Your task to perform on an android device: What is the news today? Image 0: 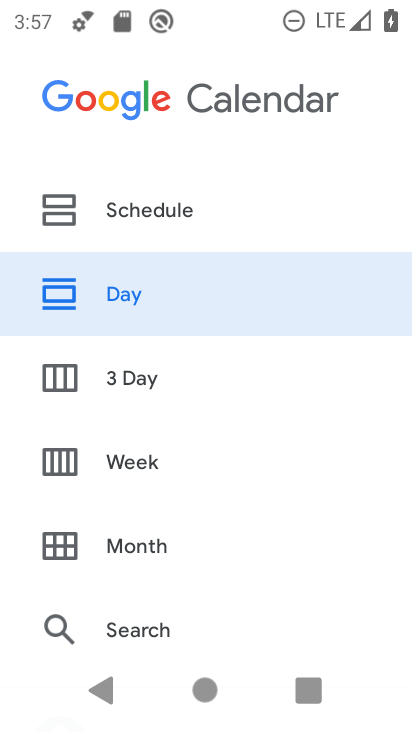
Step 0: press home button
Your task to perform on an android device: What is the news today? Image 1: 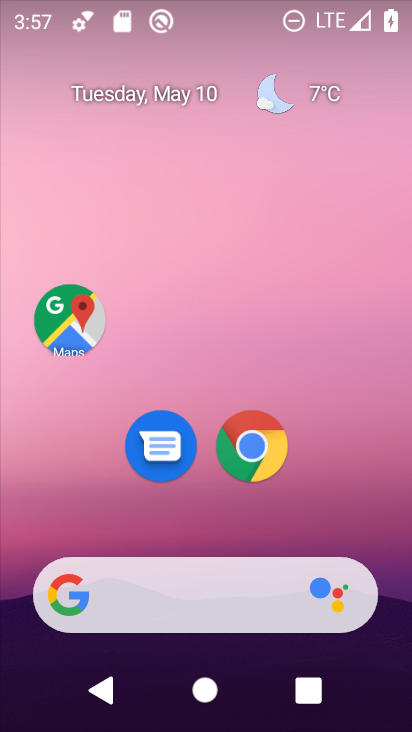
Step 1: drag from (347, 536) to (285, 56)
Your task to perform on an android device: What is the news today? Image 2: 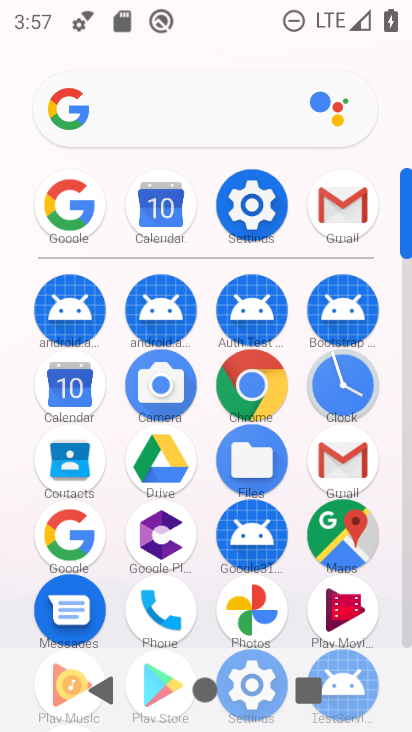
Step 2: click (69, 543)
Your task to perform on an android device: What is the news today? Image 3: 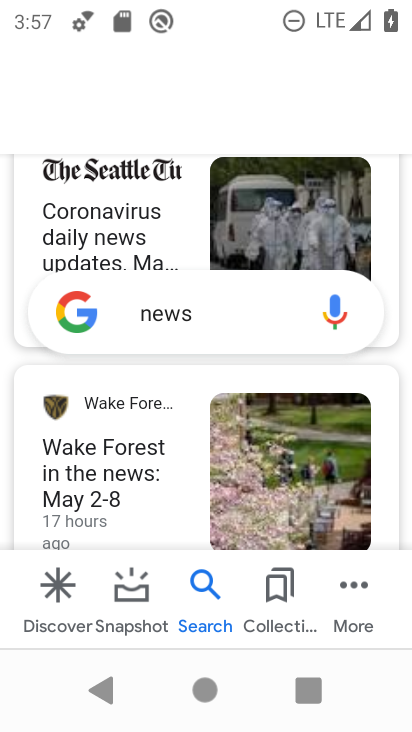
Step 3: task complete